Your task to perform on an android device: set the timer Image 0: 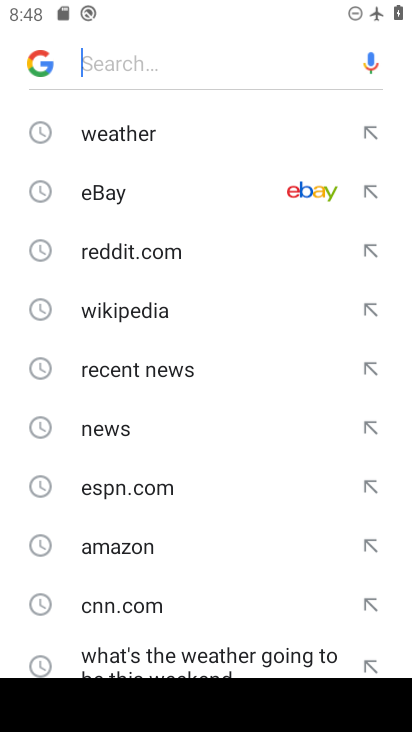
Step 0: press back button
Your task to perform on an android device: set the timer Image 1: 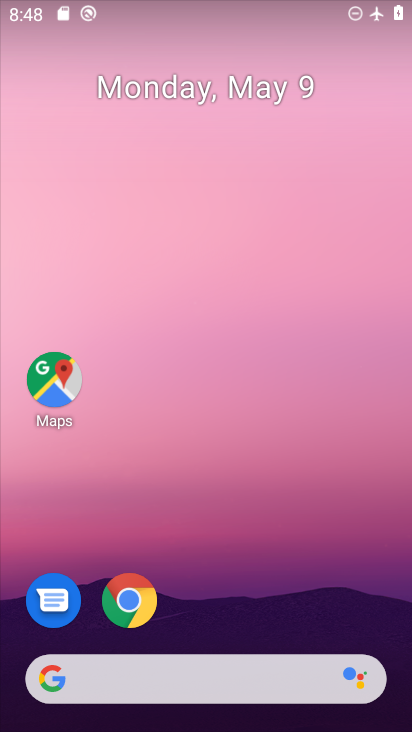
Step 1: drag from (268, 552) to (224, 23)
Your task to perform on an android device: set the timer Image 2: 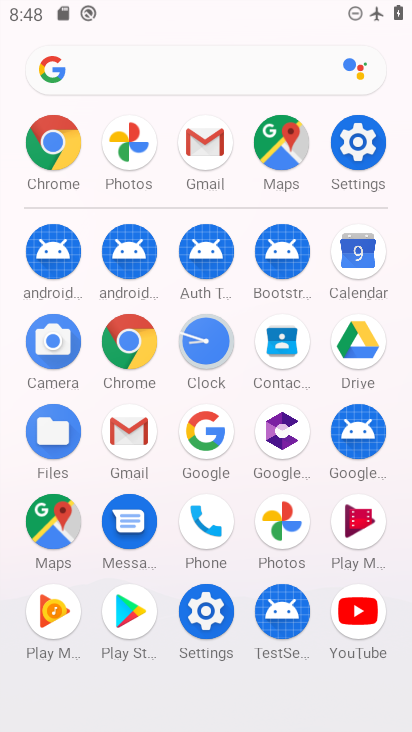
Step 2: click (206, 336)
Your task to perform on an android device: set the timer Image 3: 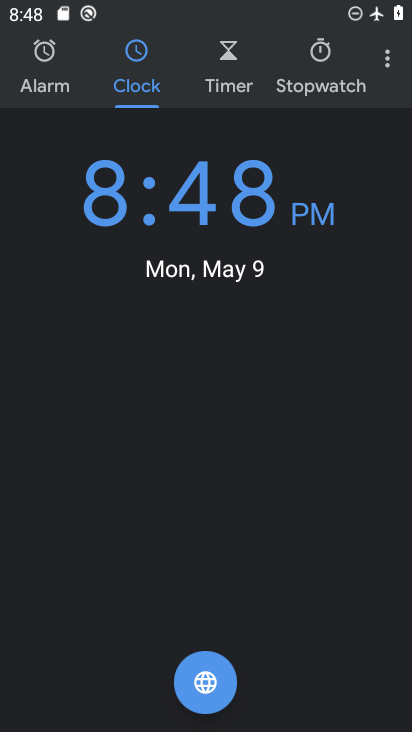
Step 3: click (222, 49)
Your task to perform on an android device: set the timer Image 4: 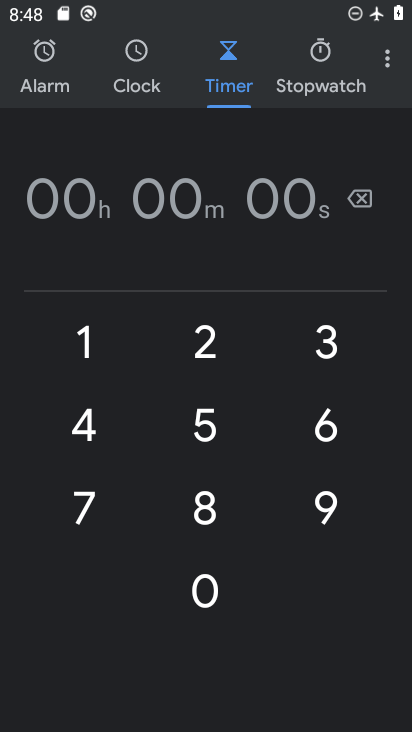
Step 4: click (197, 338)
Your task to perform on an android device: set the timer Image 5: 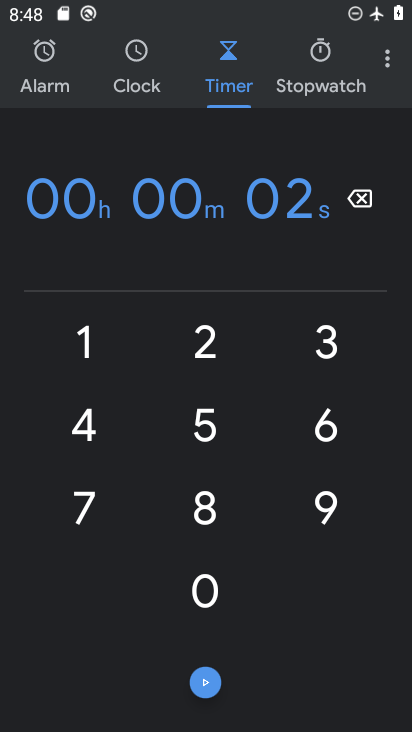
Step 5: click (103, 425)
Your task to perform on an android device: set the timer Image 6: 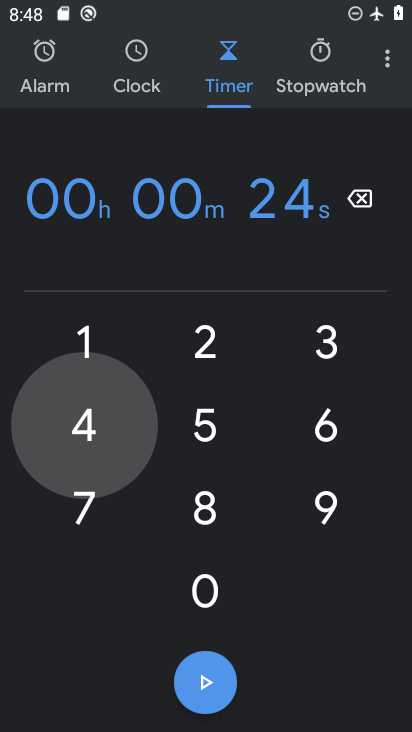
Step 6: click (208, 426)
Your task to perform on an android device: set the timer Image 7: 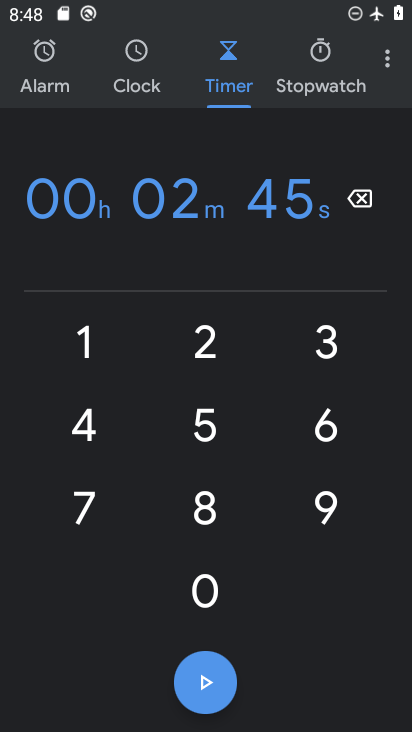
Step 7: click (308, 409)
Your task to perform on an android device: set the timer Image 8: 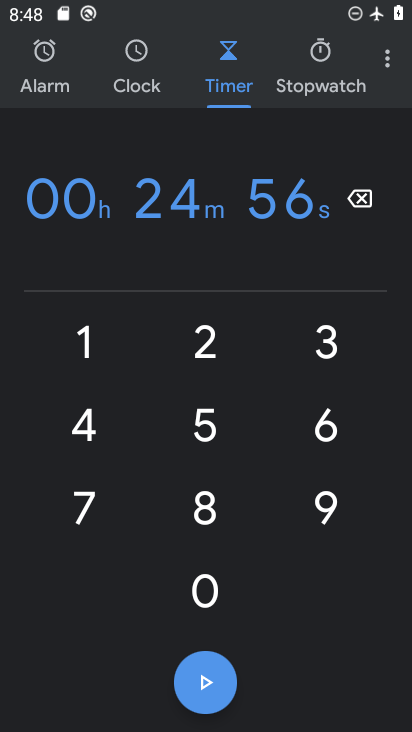
Step 8: click (325, 505)
Your task to perform on an android device: set the timer Image 9: 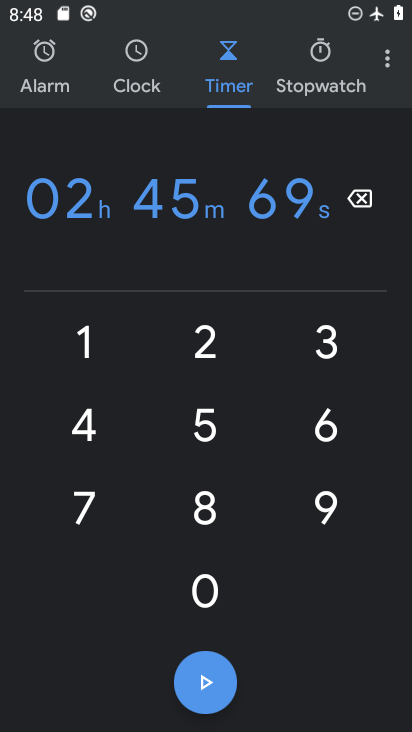
Step 9: click (196, 682)
Your task to perform on an android device: set the timer Image 10: 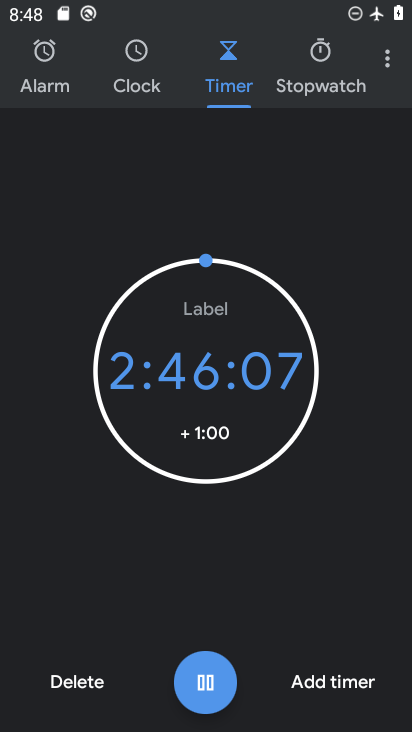
Step 10: task complete